Your task to perform on an android device: change the clock style Image 0: 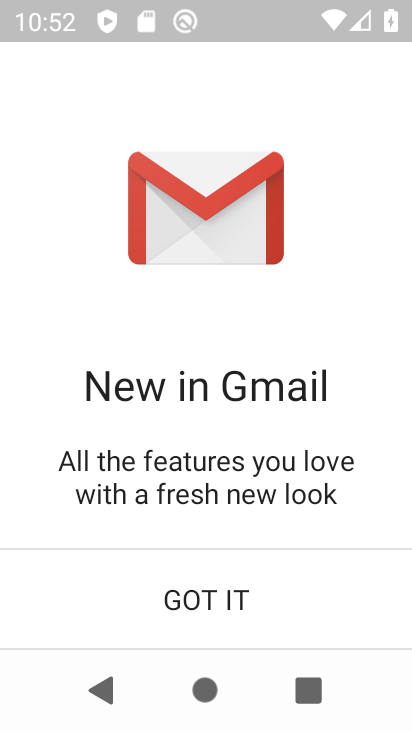
Step 0: press home button
Your task to perform on an android device: change the clock style Image 1: 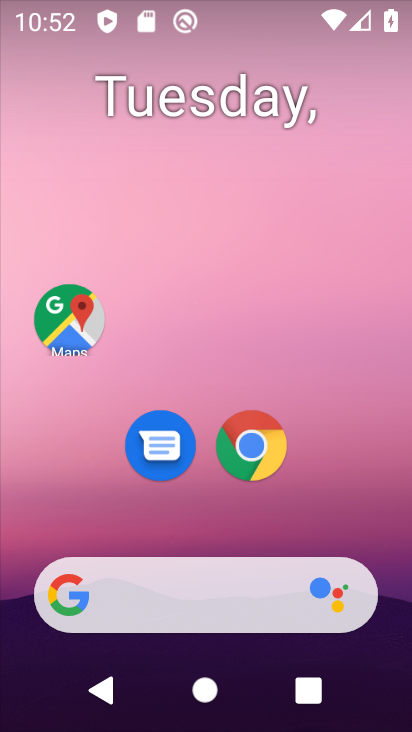
Step 1: drag from (367, 523) to (363, 162)
Your task to perform on an android device: change the clock style Image 2: 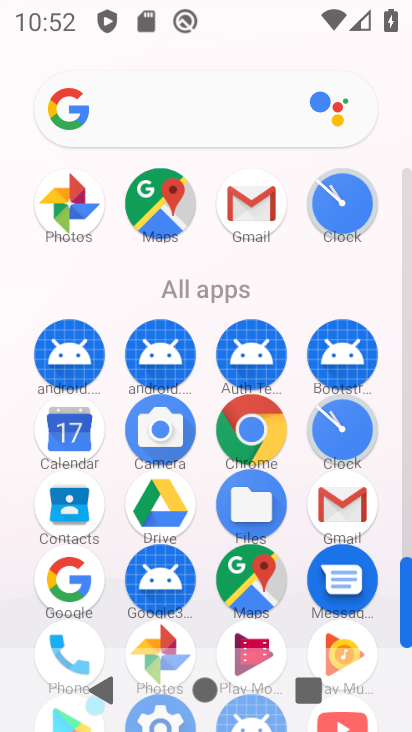
Step 2: click (358, 200)
Your task to perform on an android device: change the clock style Image 3: 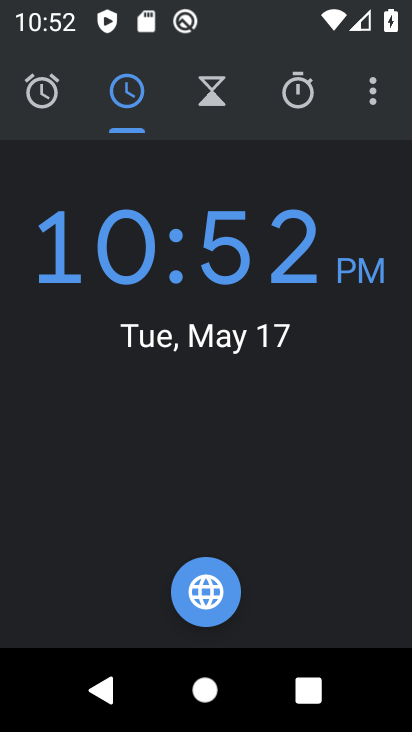
Step 3: click (375, 103)
Your task to perform on an android device: change the clock style Image 4: 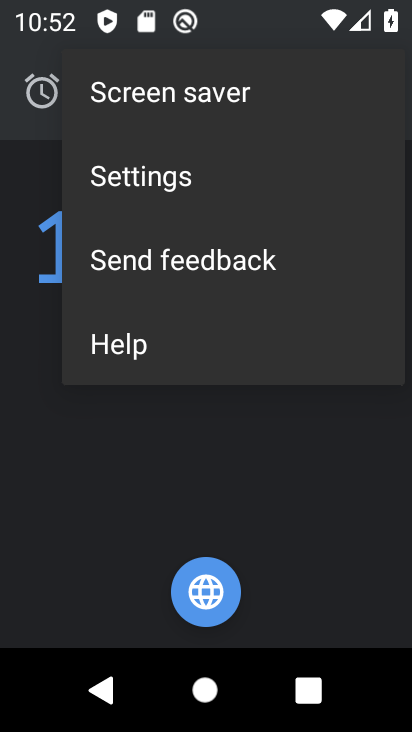
Step 4: click (246, 191)
Your task to perform on an android device: change the clock style Image 5: 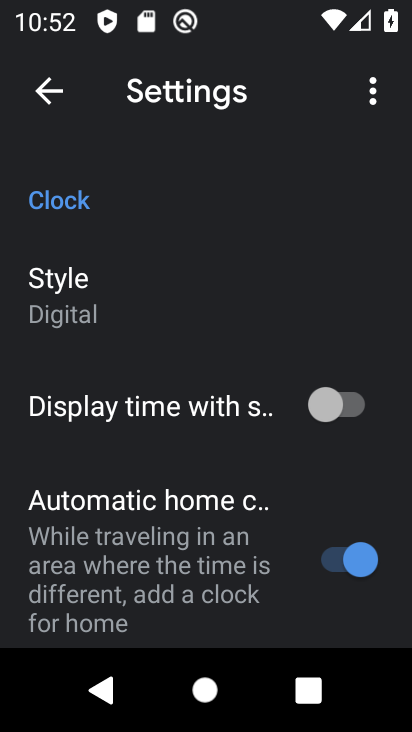
Step 5: drag from (265, 480) to (266, 363)
Your task to perform on an android device: change the clock style Image 6: 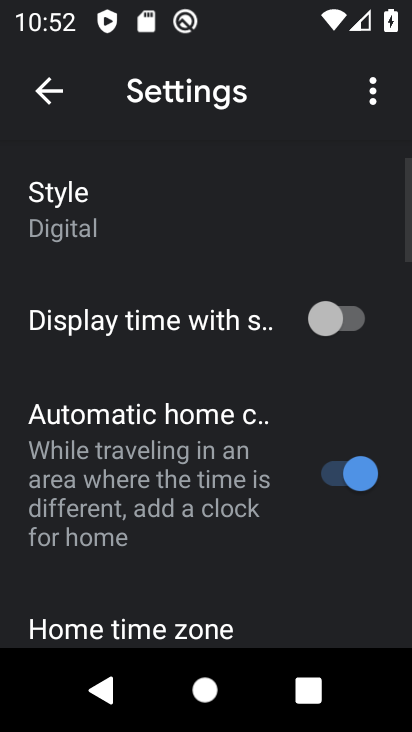
Step 6: drag from (282, 543) to (283, 423)
Your task to perform on an android device: change the clock style Image 7: 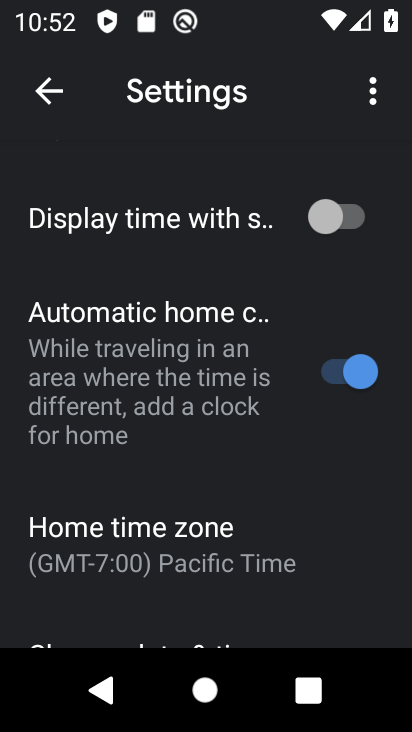
Step 7: drag from (285, 565) to (295, 431)
Your task to perform on an android device: change the clock style Image 8: 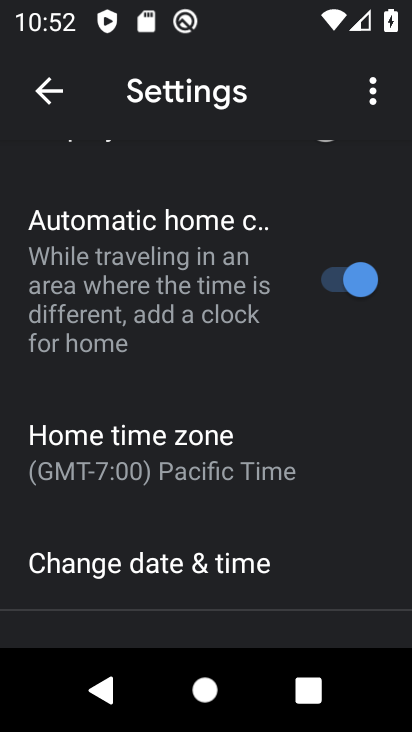
Step 8: drag from (298, 567) to (305, 420)
Your task to perform on an android device: change the clock style Image 9: 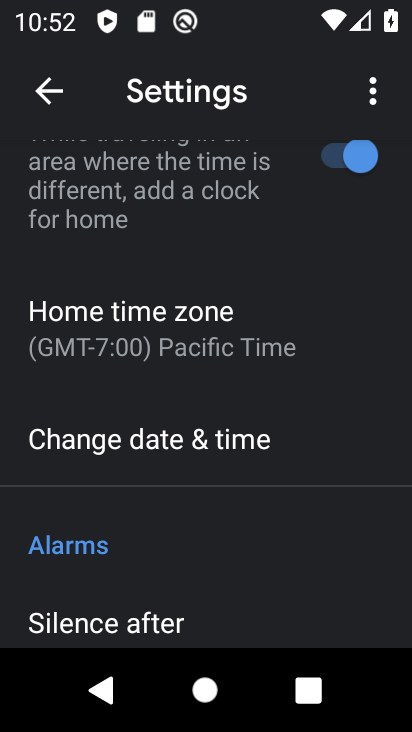
Step 9: drag from (301, 534) to (298, 406)
Your task to perform on an android device: change the clock style Image 10: 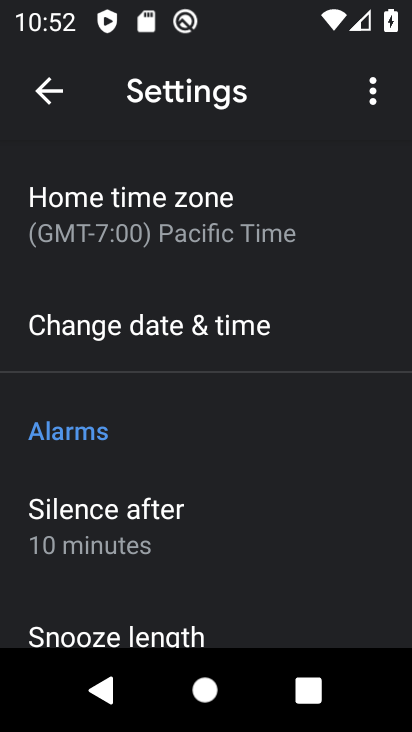
Step 10: drag from (269, 551) to (279, 411)
Your task to perform on an android device: change the clock style Image 11: 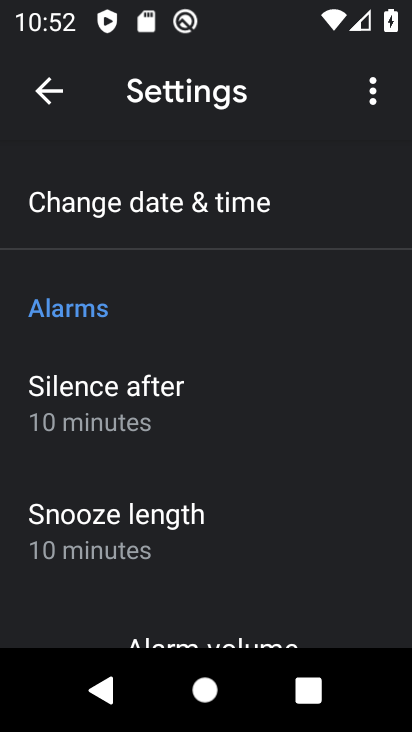
Step 11: drag from (296, 546) to (307, 430)
Your task to perform on an android device: change the clock style Image 12: 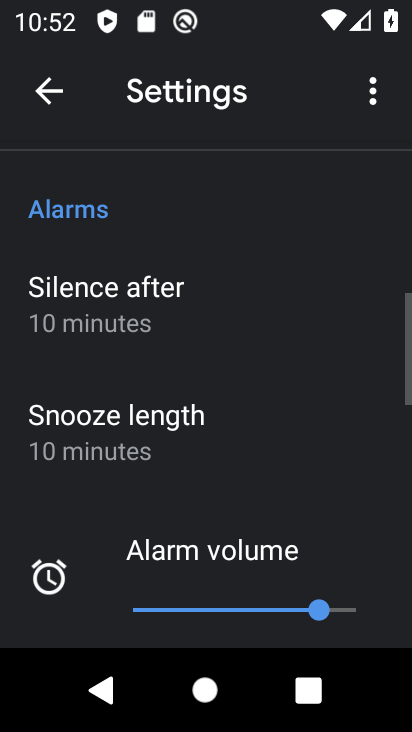
Step 12: drag from (325, 568) to (347, 402)
Your task to perform on an android device: change the clock style Image 13: 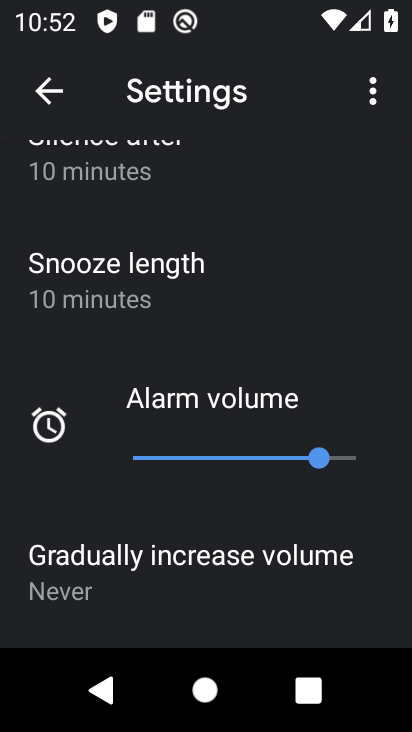
Step 13: drag from (371, 561) to (367, 391)
Your task to perform on an android device: change the clock style Image 14: 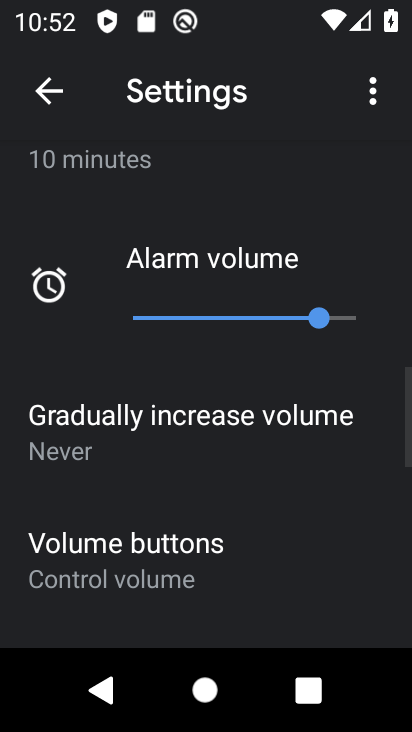
Step 14: drag from (362, 254) to (363, 421)
Your task to perform on an android device: change the clock style Image 15: 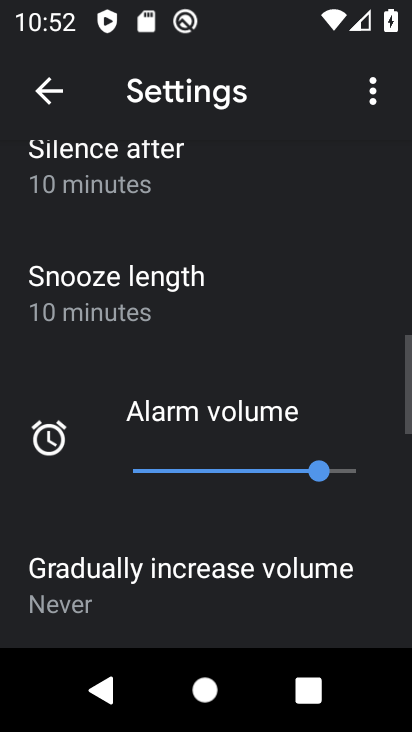
Step 15: drag from (359, 252) to (365, 418)
Your task to perform on an android device: change the clock style Image 16: 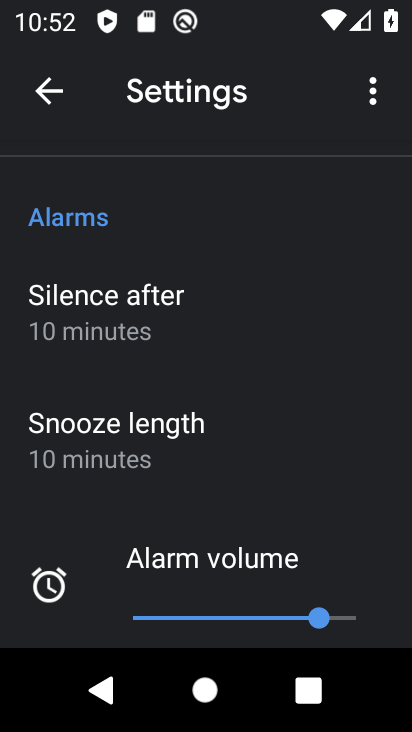
Step 16: drag from (361, 261) to (357, 408)
Your task to perform on an android device: change the clock style Image 17: 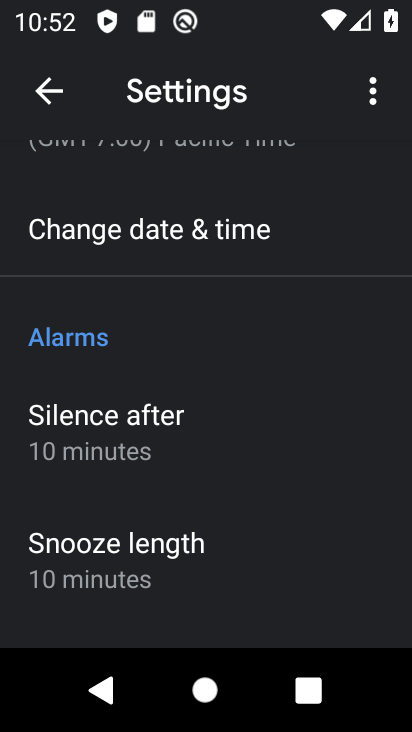
Step 17: drag from (337, 224) to (324, 364)
Your task to perform on an android device: change the clock style Image 18: 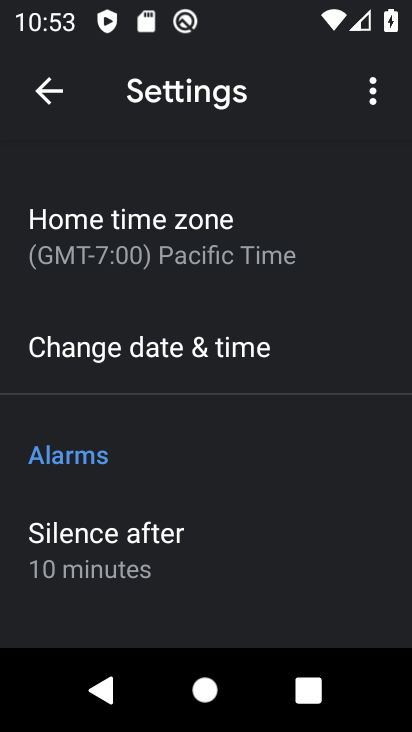
Step 18: drag from (335, 219) to (324, 368)
Your task to perform on an android device: change the clock style Image 19: 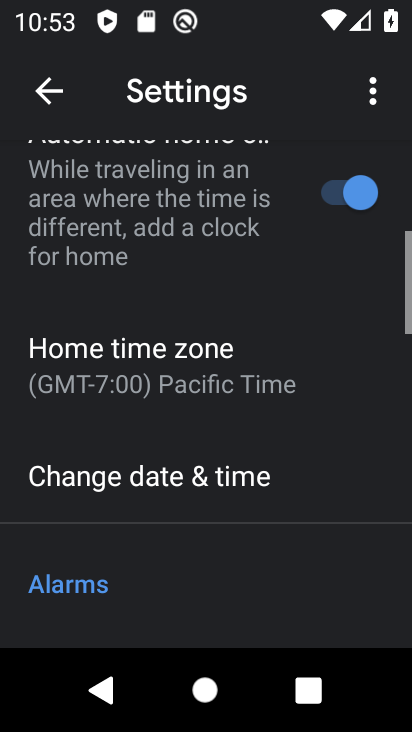
Step 19: drag from (300, 182) to (296, 383)
Your task to perform on an android device: change the clock style Image 20: 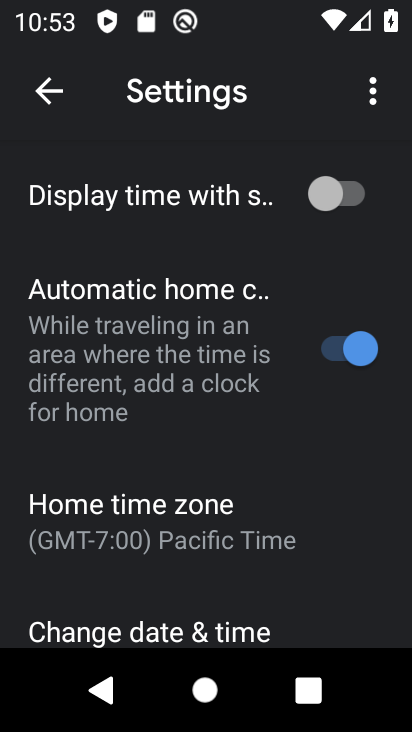
Step 20: drag from (278, 167) to (281, 328)
Your task to perform on an android device: change the clock style Image 21: 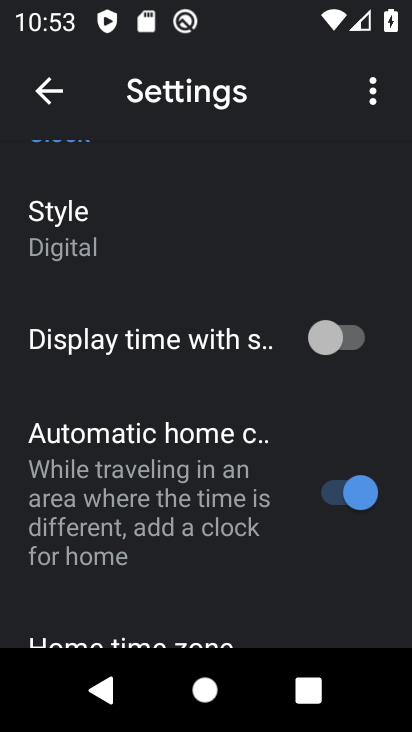
Step 21: drag from (182, 200) to (195, 415)
Your task to perform on an android device: change the clock style Image 22: 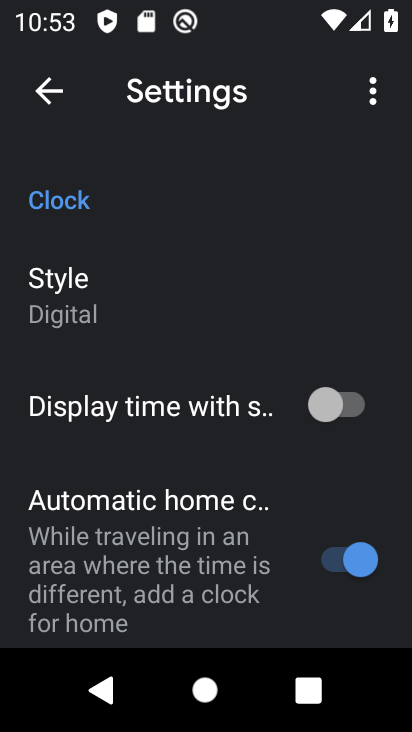
Step 22: click (59, 330)
Your task to perform on an android device: change the clock style Image 23: 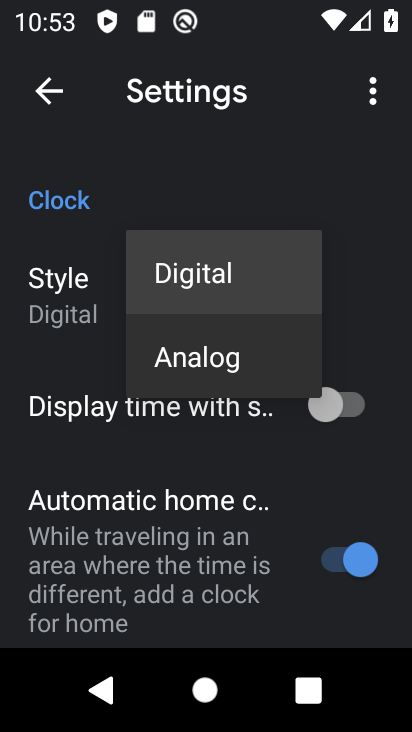
Step 23: click (164, 356)
Your task to perform on an android device: change the clock style Image 24: 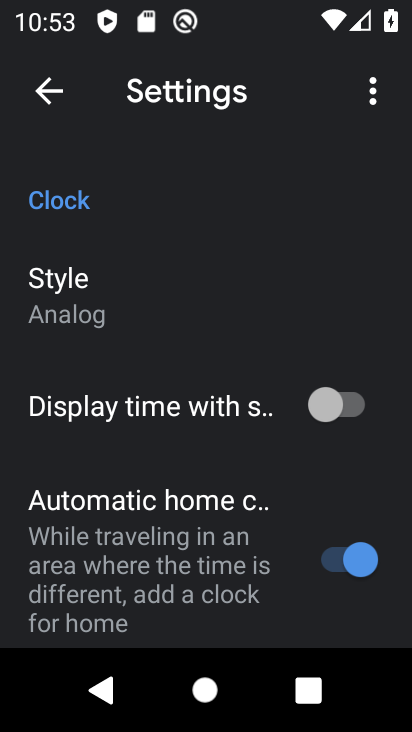
Step 24: task complete